Your task to perform on an android device: Open Google Maps Image 0: 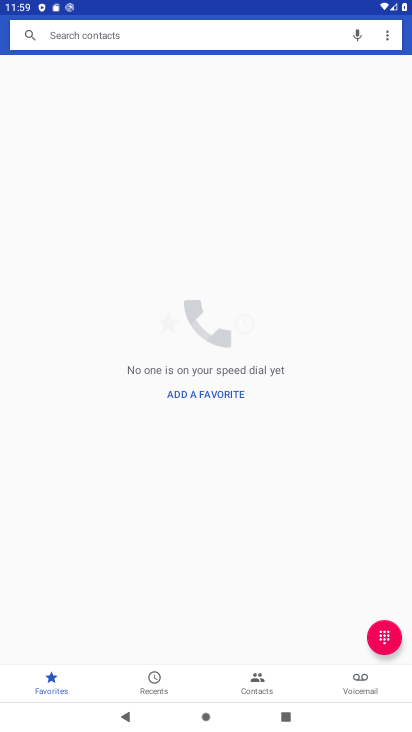
Step 0: press home button
Your task to perform on an android device: Open Google Maps Image 1: 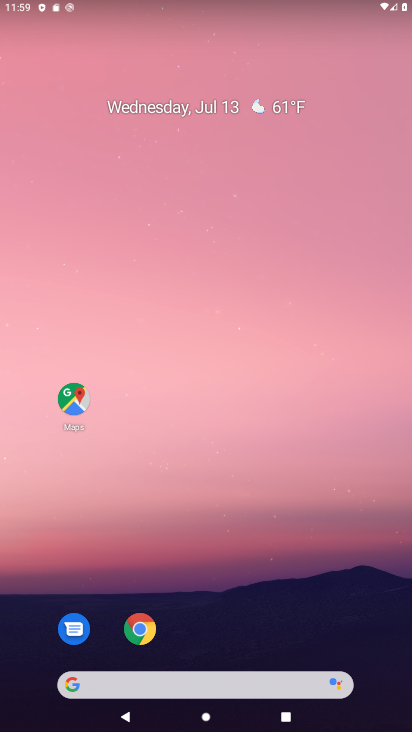
Step 1: click (72, 395)
Your task to perform on an android device: Open Google Maps Image 2: 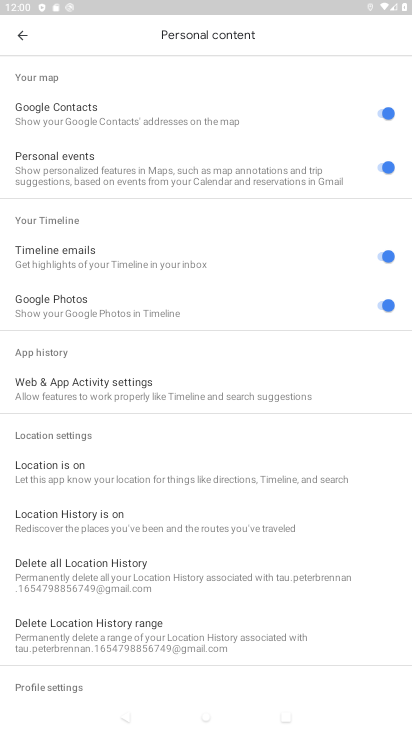
Step 2: click (26, 31)
Your task to perform on an android device: Open Google Maps Image 3: 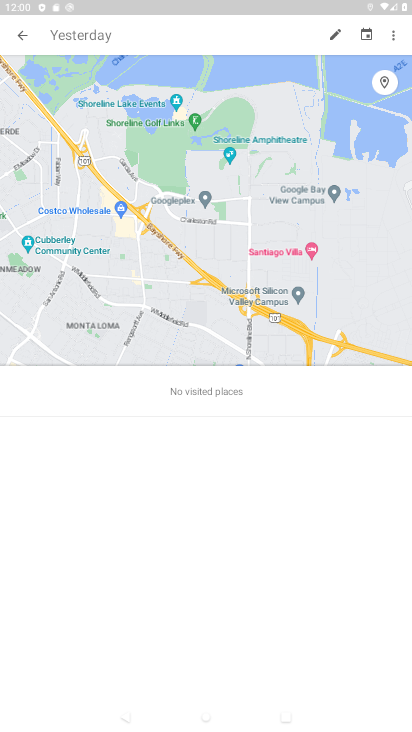
Step 3: task complete